Your task to perform on an android device: turn off data saver in the chrome app Image 0: 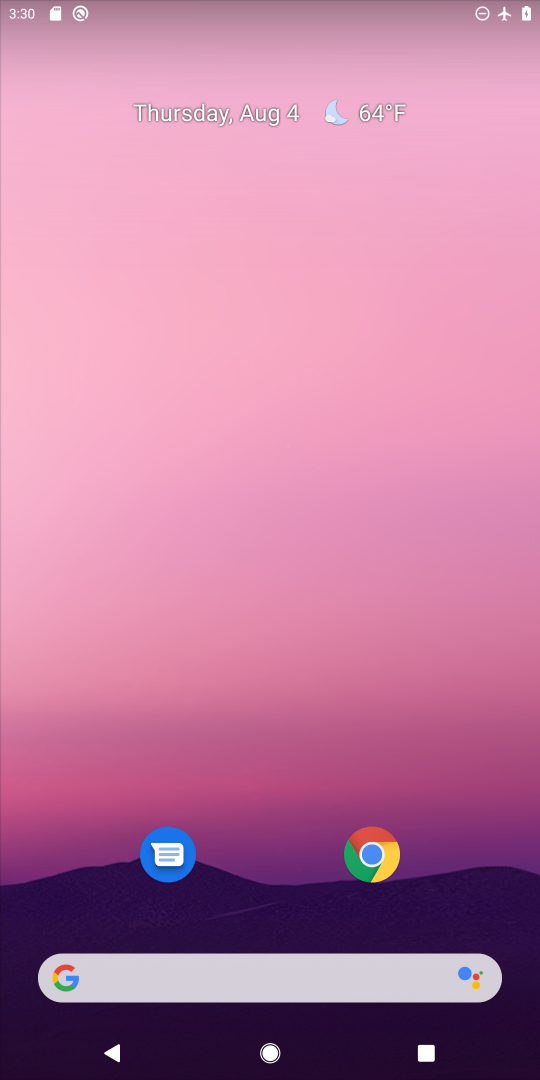
Step 0: click (367, 866)
Your task to perform on an android device: turn off data saver in the chrome app Image 1: 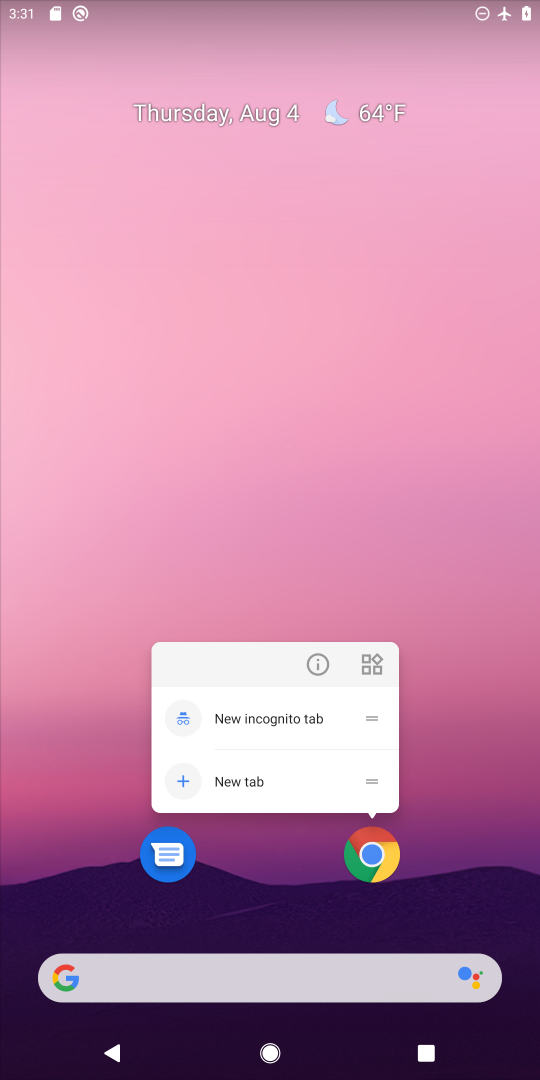
Step 1: click (270, 911)
Your task to perform on an android device: turn off data saver in the chrome app Image 2: 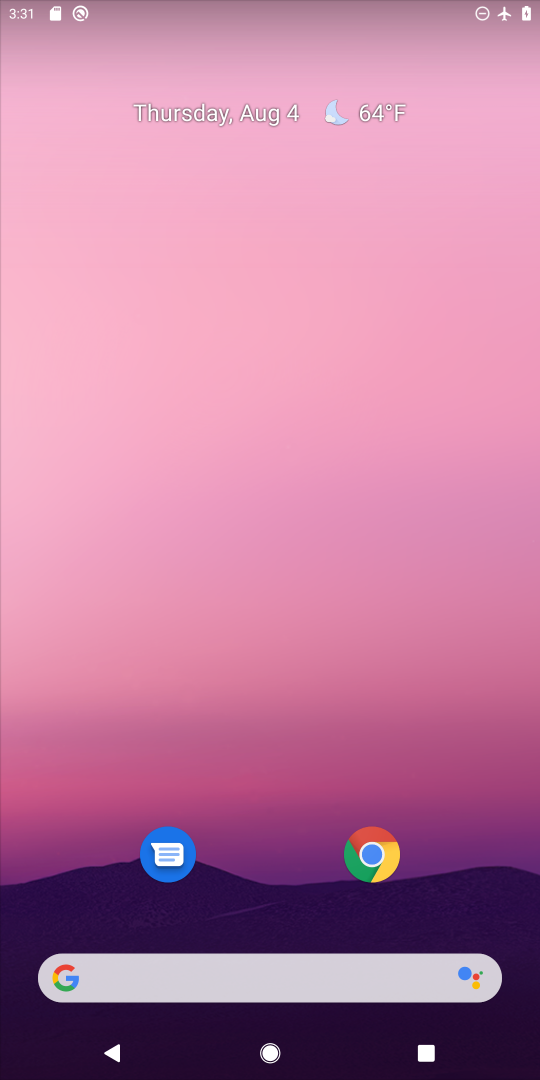
Step 2: drag from (270, 911) to (295, 508)
Your task to perform on an android device: turn off data saver in the chrome app Image 3: 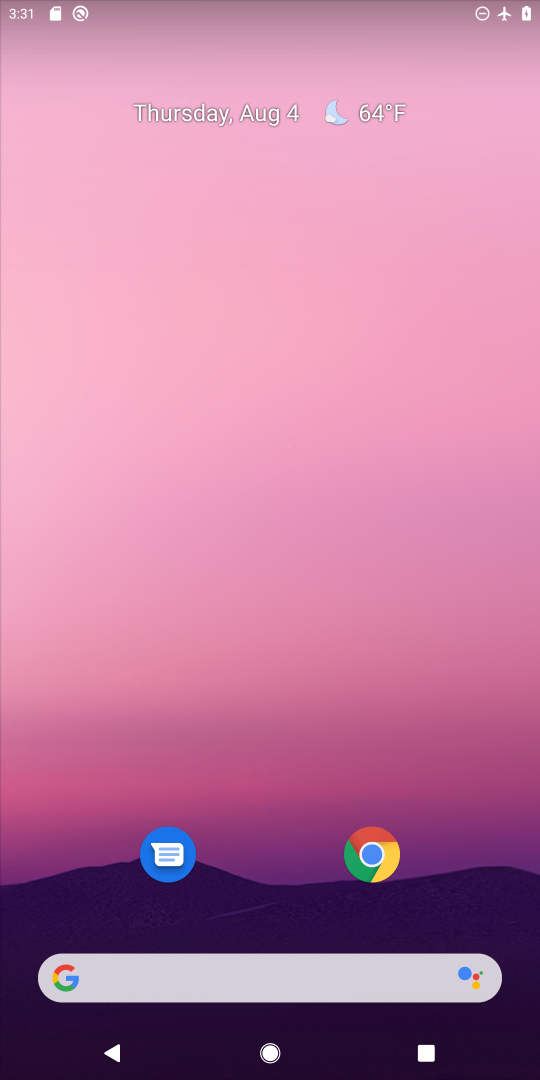
Step 3: drag from (260, 860) to (272, 136)
Your task to perform on an android device: turn off data saver in the chrome app Image 4: 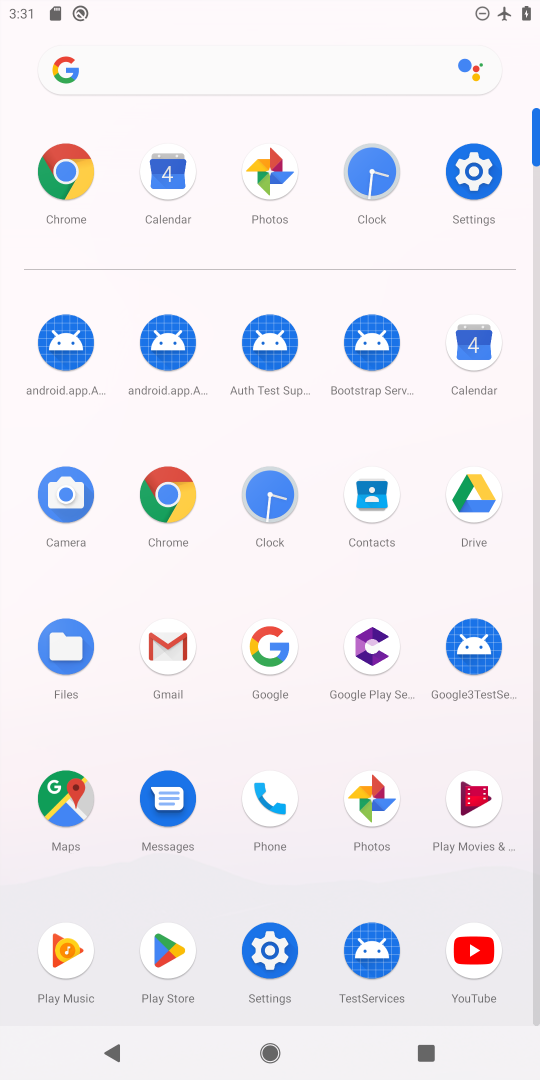
Step 4: click (69, 185)
Your task to perform on an android device: turn off data saver in the chrome app Image 5: 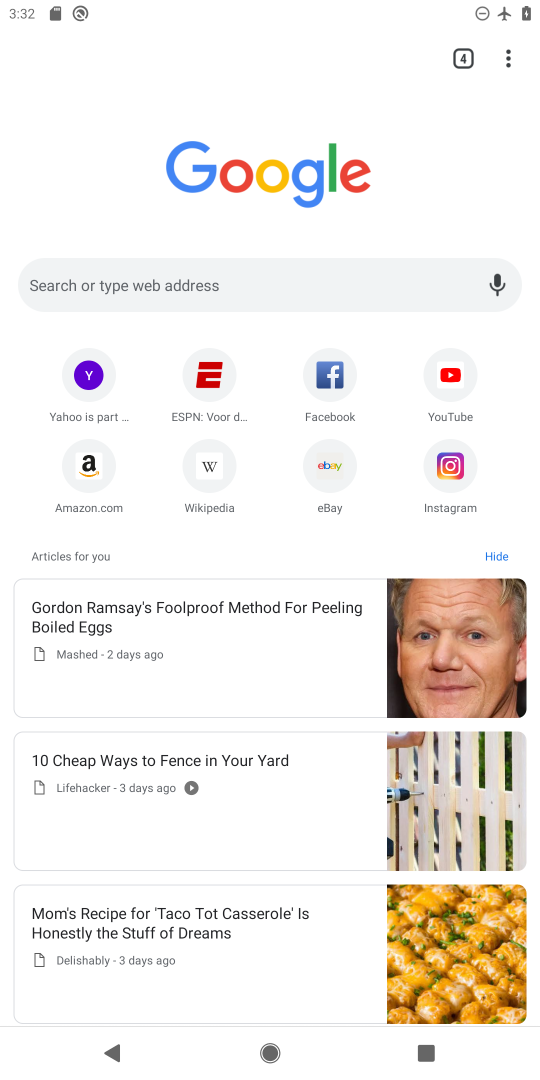
Step 5: task complete